Your task to perform on an android device: Open display settings Image 0: 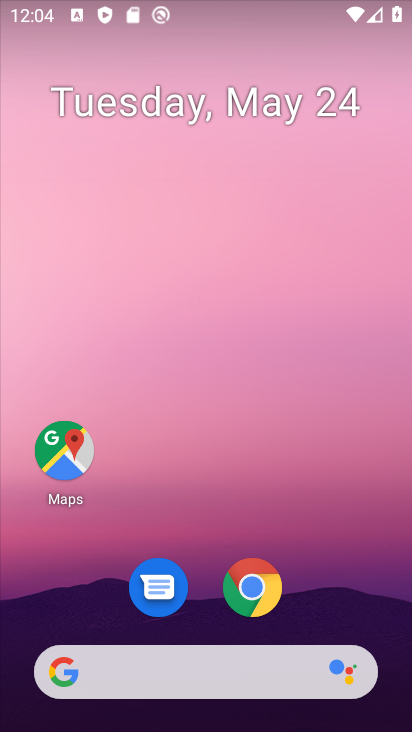
Step 0: drag from (174, 720) to (274, 97)
Your task to perform on an android device: Open display settings Image 1: 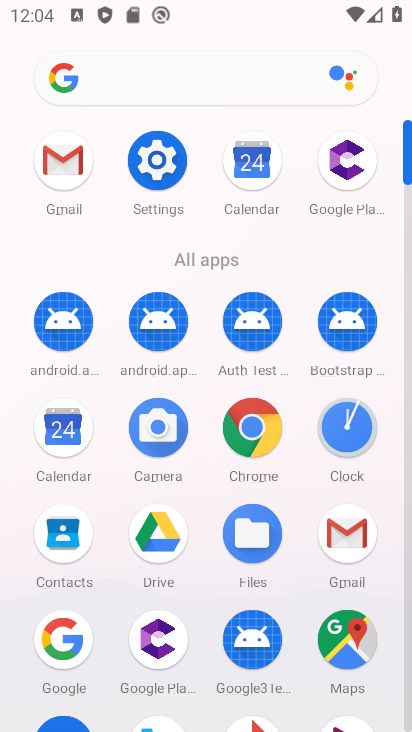
Step 1: click (151, 156)
Your task to perform on an android device: Open display settings Image 2: 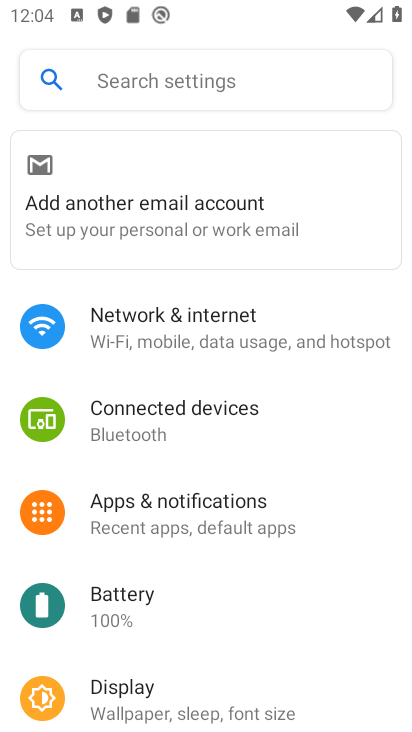
Step 2: click (149, 700)
Your task to perform on an android device: Open display settings Image 3: 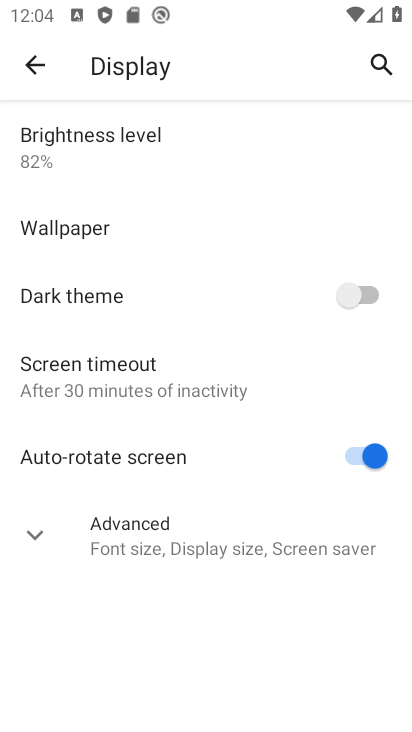
Step 3: task complete